Your task to perform on an android device: Do I have any events tomorrow? Image 0: 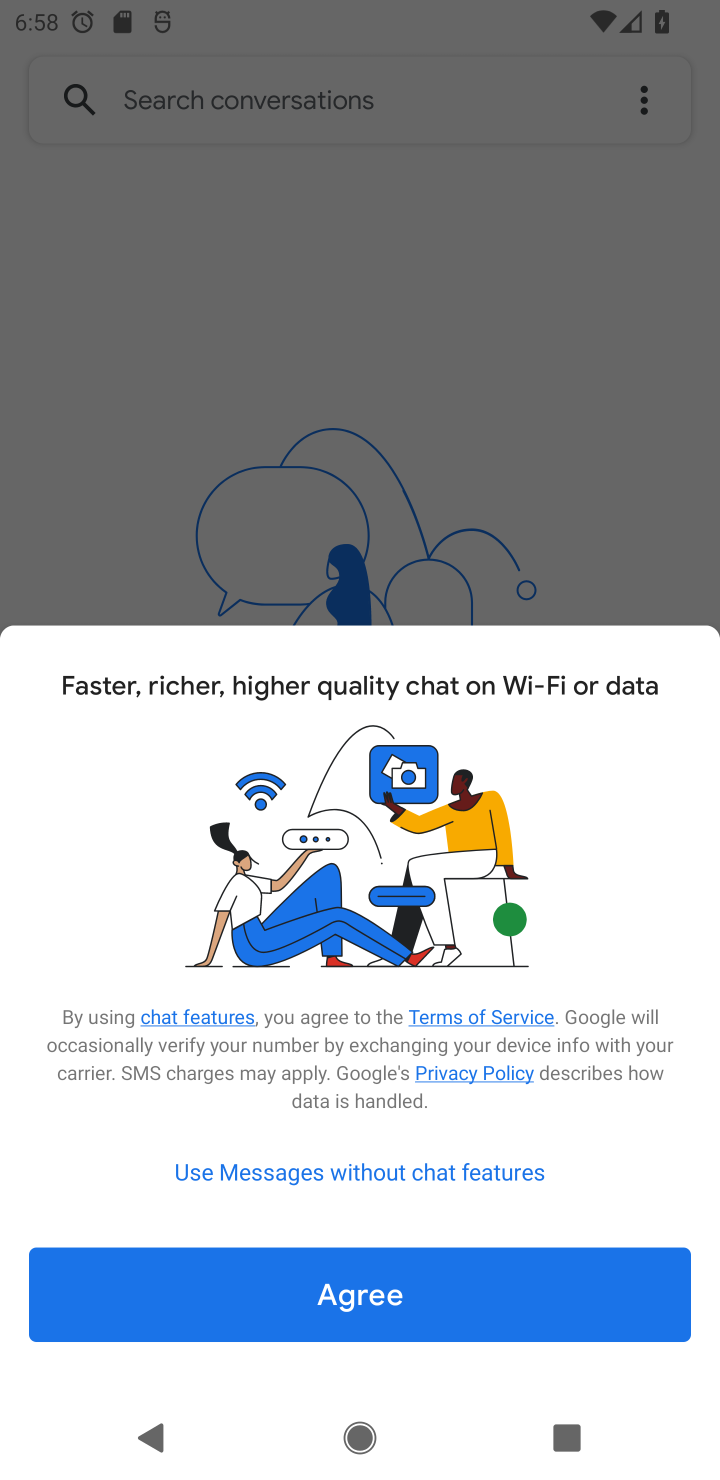
Step 0: task complete